Your task to perform on an android device: toggle javascript in the chrome app Image 0: 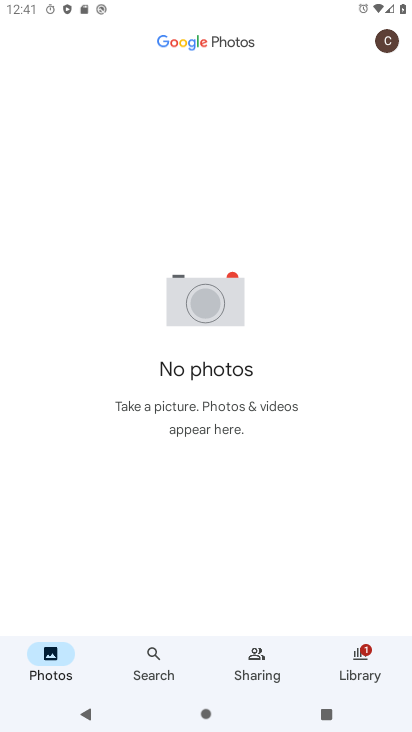
Step 0: press home button
Your task to perform on an android device: toggle javascript in the chrome app Image 1: 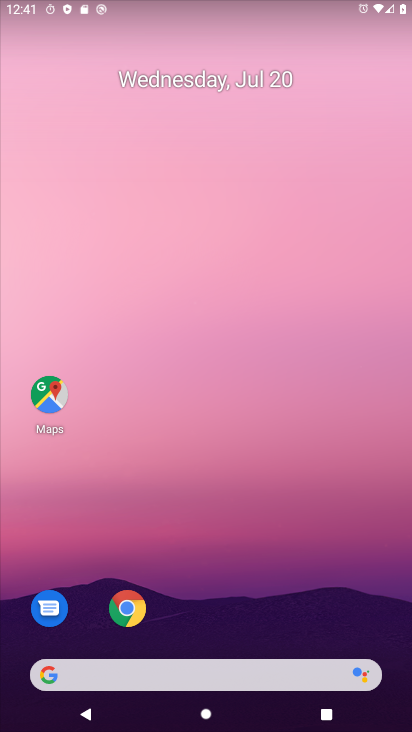
Step 1: click (127, 611)
Your task to perform on an android device: toggle javascript in the chrome app Image 2: 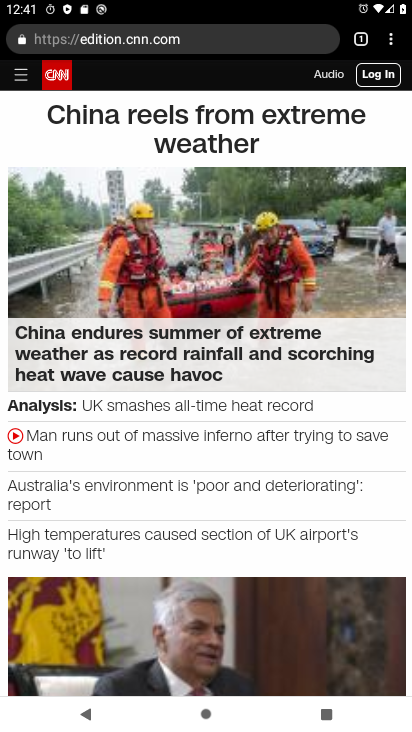
Step 2: click (392, 39)
Your task to perform on an android device: toggle javascript in the chrome app Image 3: 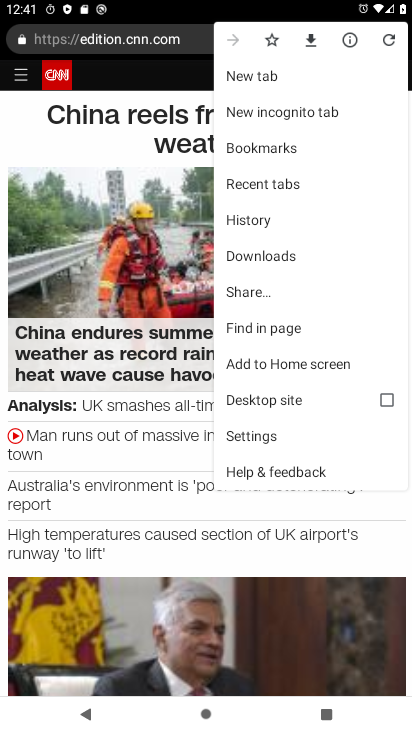
Step 3: click (263, 440)
Your task to perform on an android device: toggle javascript in the chrome app Image 4: 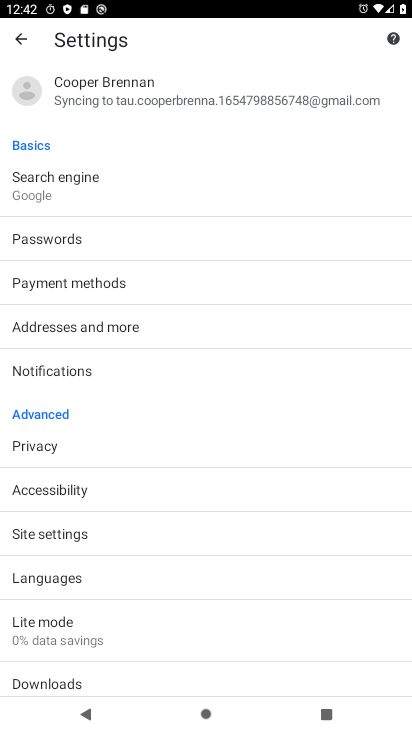
Step 4: click (50, 533)
Your task to perform on an android device: toggle javascript in the chrome app Image 5: 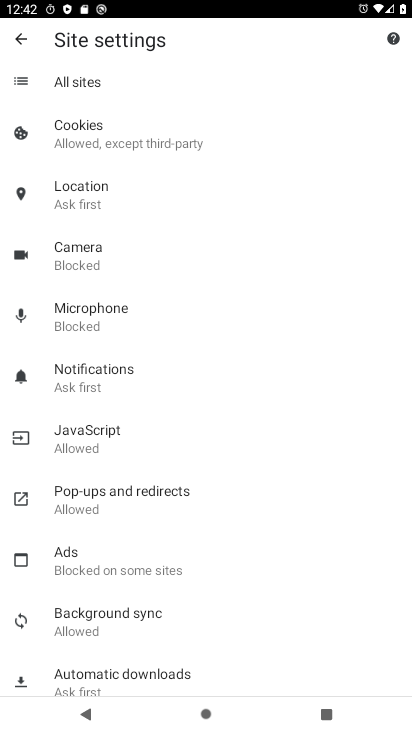
Step 5: click (102, 438)
Your task to perform on an android device: toggle javascript in the chrome app Image 6: 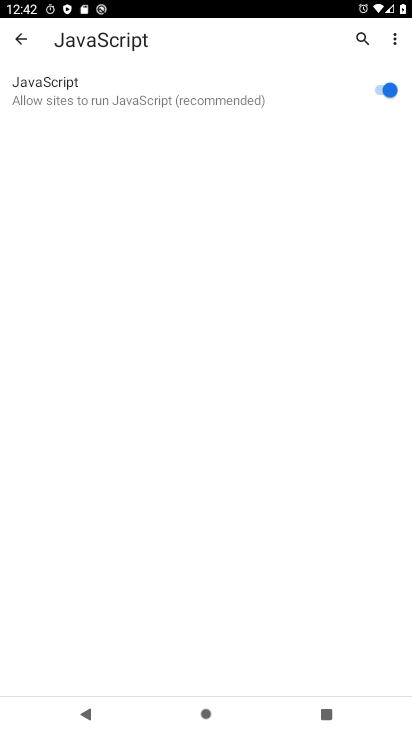
Step 6: click (380, 91)
Your task to perform on an android device: toggle javascript in the chrome app Image 7: 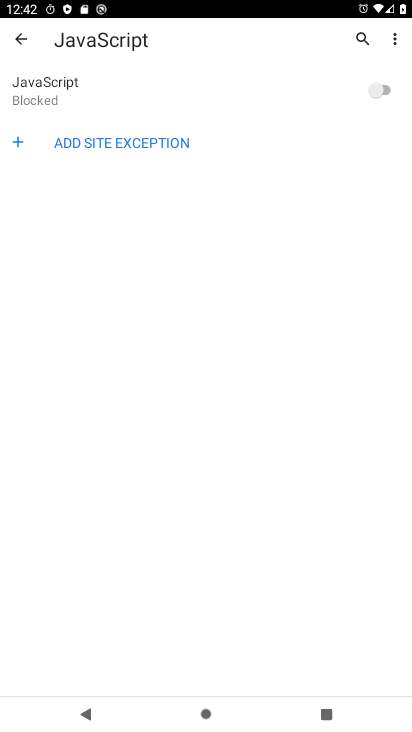
Step 7: task complete